Your task to perform on an android device: When is my next appointment? Image 0: 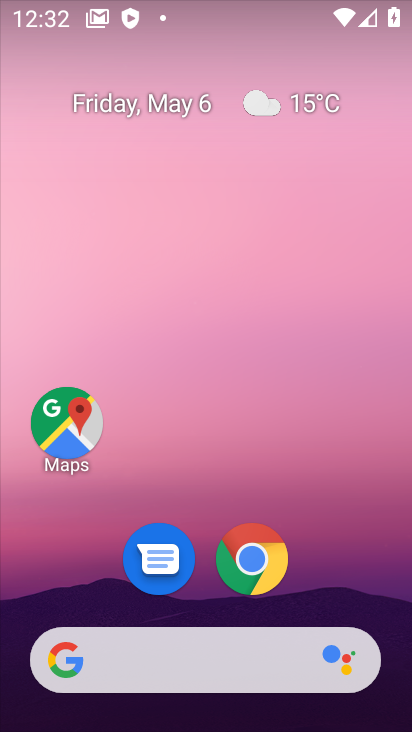
Step 0: drag from (207, 609) to (188, 185)
Your task to perform on an android device: When is my next appointment? Image 1: 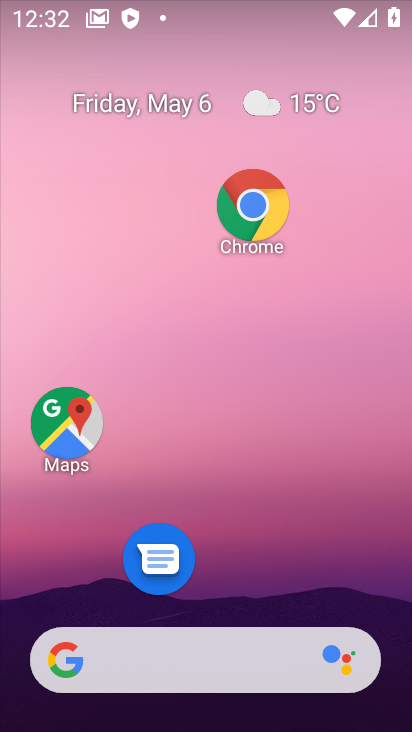
Step 1: drag from (226, 579) to (268, 36)
Your task to perform on an android device: When is my next appointment? Image 2: 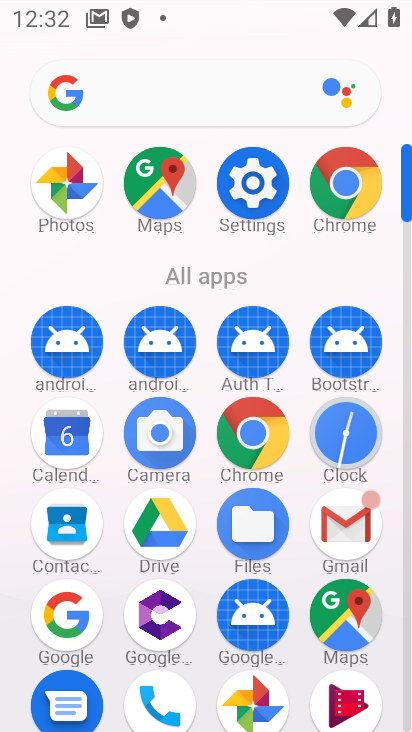
Step 2: click (262, 213)
Your task to perform on an android device: When is my next appointment? Image 3: 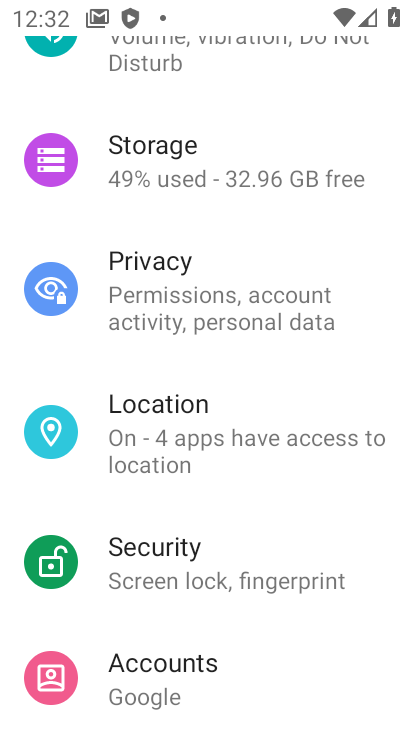
Step 3: press home button
Your task to perform on an android device: When is my next appointment? Image 4: 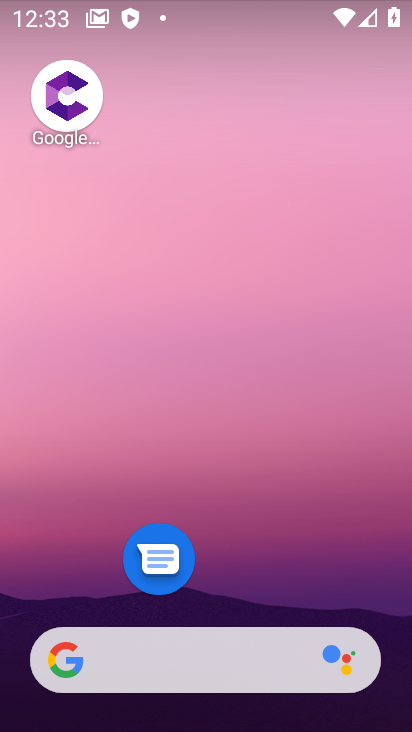
Step 4: drag from (209, 598) to (217, 5)
Your task to perform on an android device: When is my next appointment? Image 5: 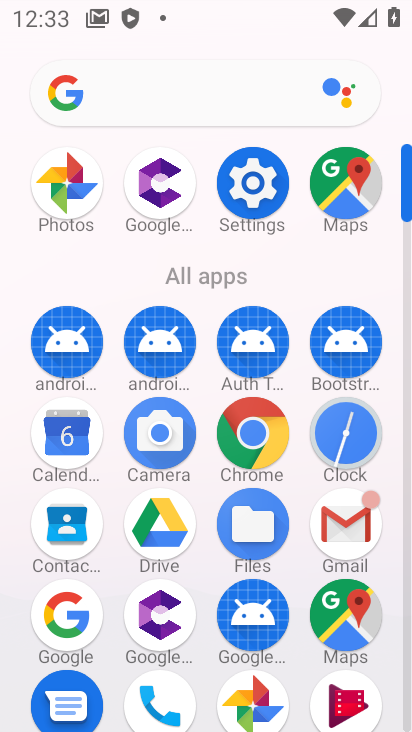
Step 5: click (364, 603)
Your task to perform on an android device: When is my next appointment? Image 6: 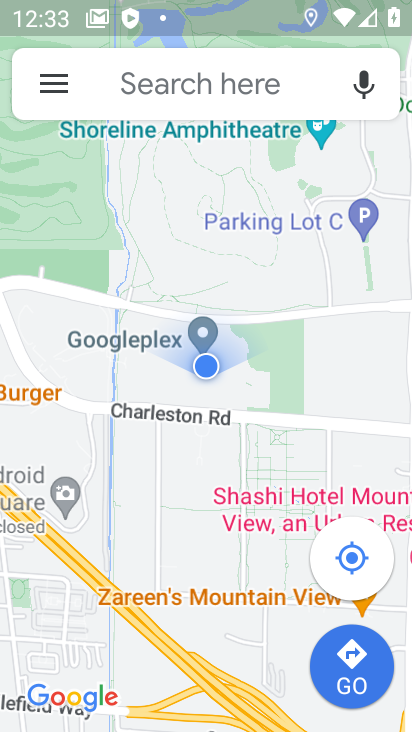
Step 6: press home button
Your task to perform on an android device: When is my next appointment? Image 7: 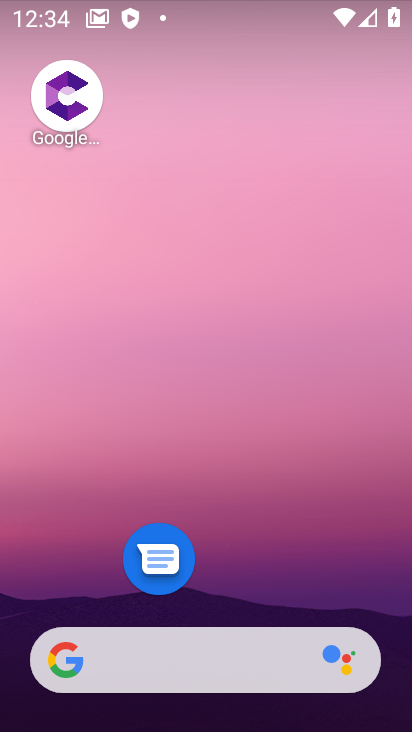
Step 7: drag from (206, 600) to (168, 112)
Your task to perform on an android device: When is my next appointment? Image 8: 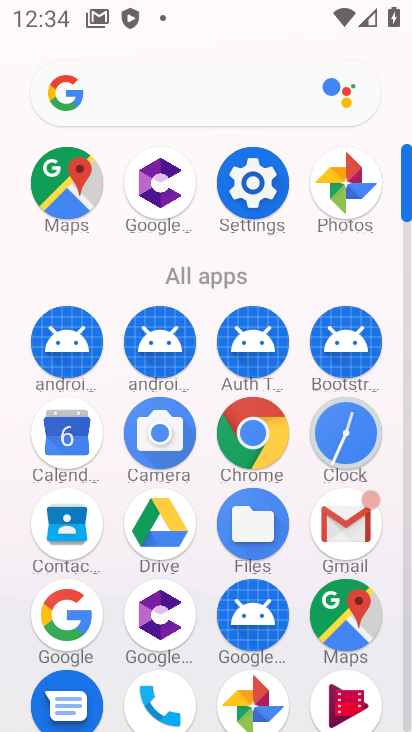
Step 8: click (72, 438)
Your task to perform on an android device: When is my next appointment? Image 9: 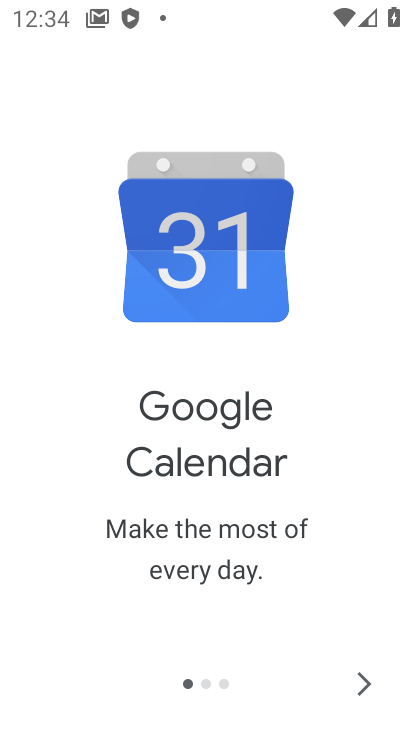
Step 9: click (370, 690)
Your task to perform on an android device: When is my next appointment? Image 10: 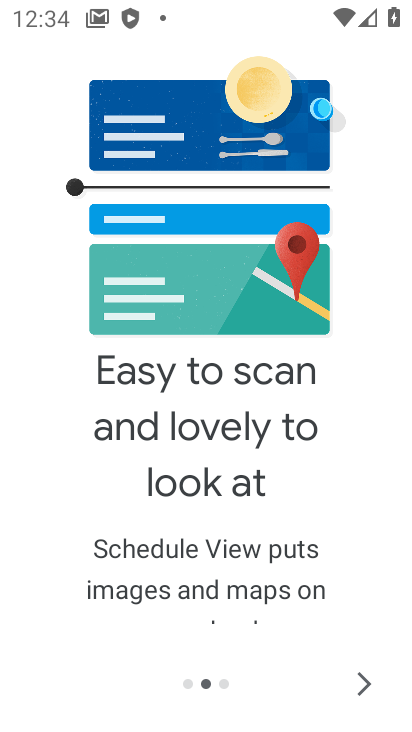
Step 10: click (370, 690)
Your task to perform on an android device: When is my next appointment? Image 11: 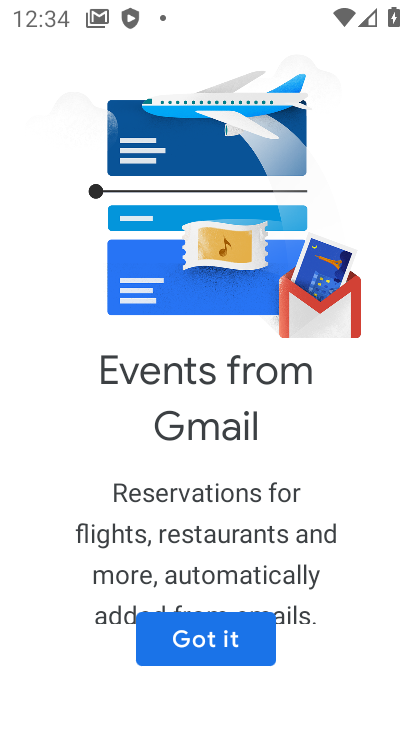
Step 11: click (225, 658)
Your task to perform on an android device: When is my next appointment? Image 12: 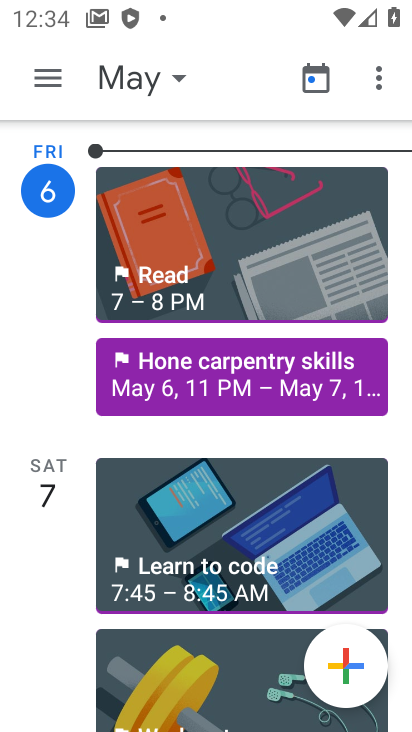
Step 12: task complete